Your task to perform on an android device: Go to internet settings Image 0: 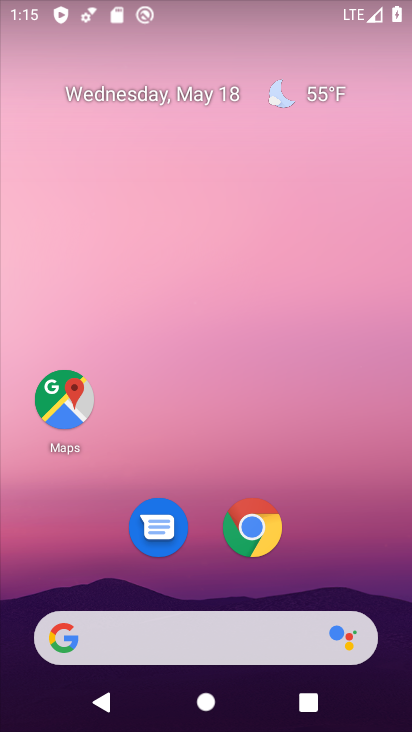
Step 0: drag from (328, 511) to (291, 38)
Your task to perform on an android device: Go to internet settings Image 1: 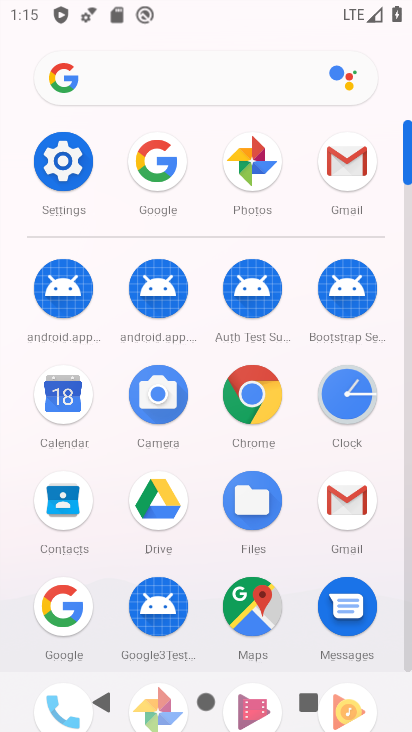
Step 1: click (45, 162)
Your task to perform on an android device: Go to internet settings Image 2: 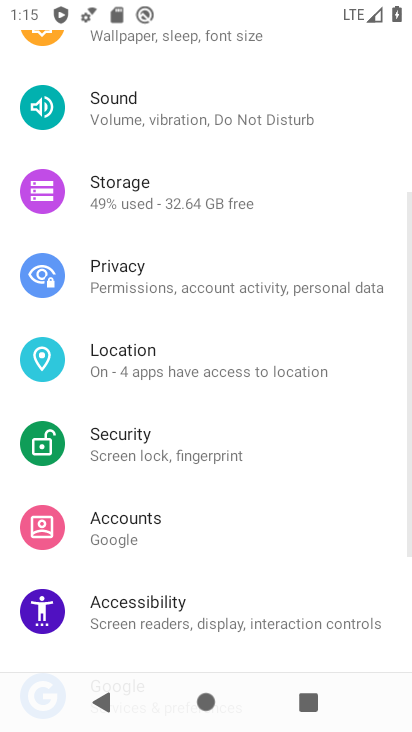
Step 2: drag from (240, 121) to (205, 682)
Your task to perform on an android device: Go to internet settings Image 3: 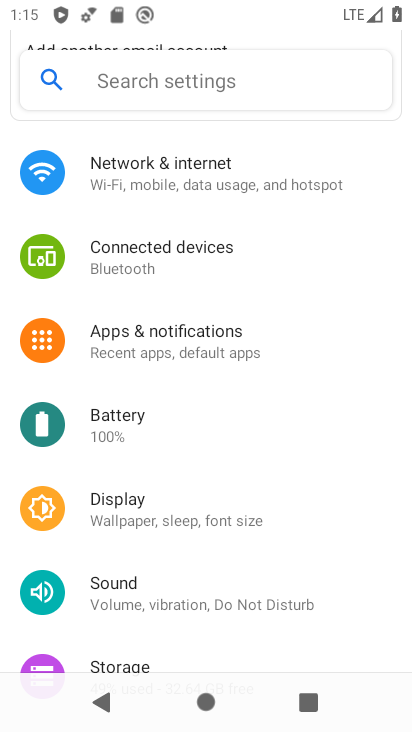
Step 3: click (206, 176)
Your task to perform on an android device: Go to internet settings Image 4: 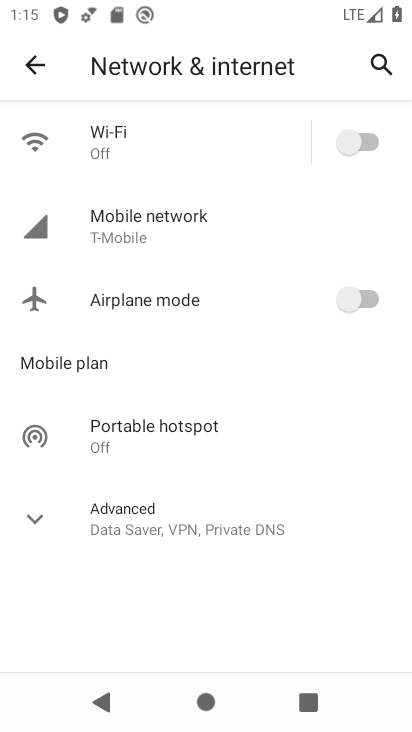
Step 4: task complete